Your task to perform on an android device: change text size in settings app Image 0: 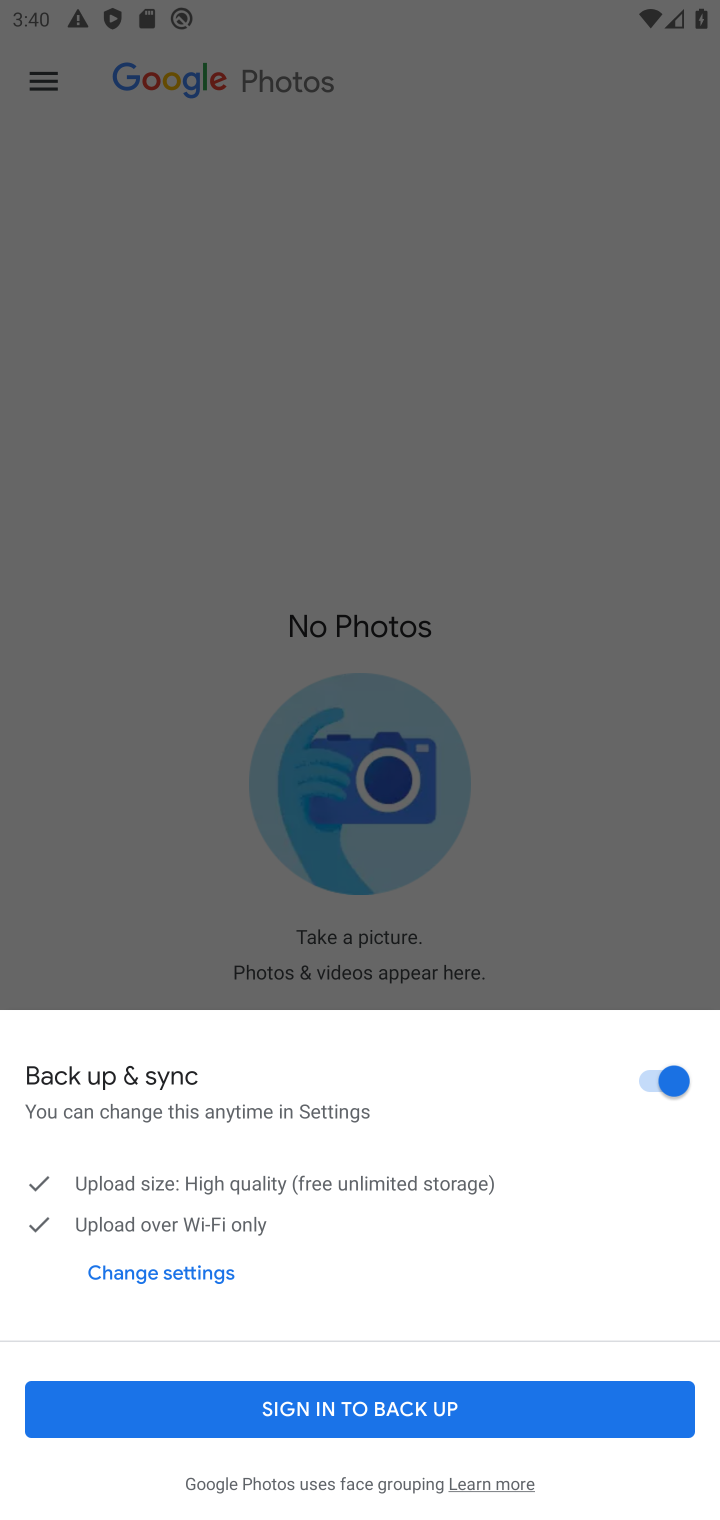
Step 0: task complete